Your task to perform on an android device: Open the map Image 0: 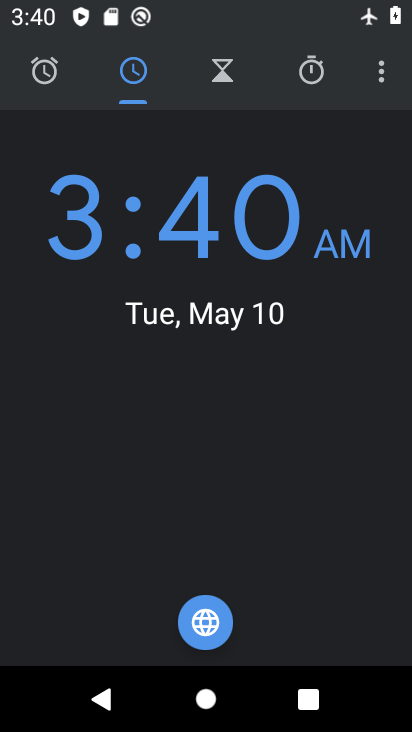
Step 0: press home button
Your task to perform on an android device: Open the map Image 1: 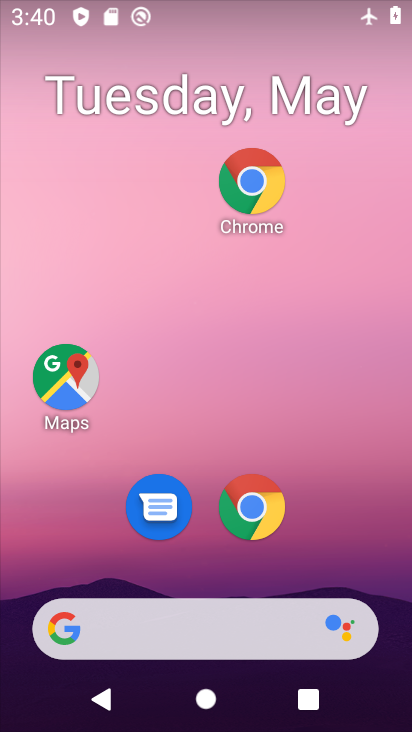
Step 1: click (61, 377)
Your task to perform on an android device: Open the map Image 2: 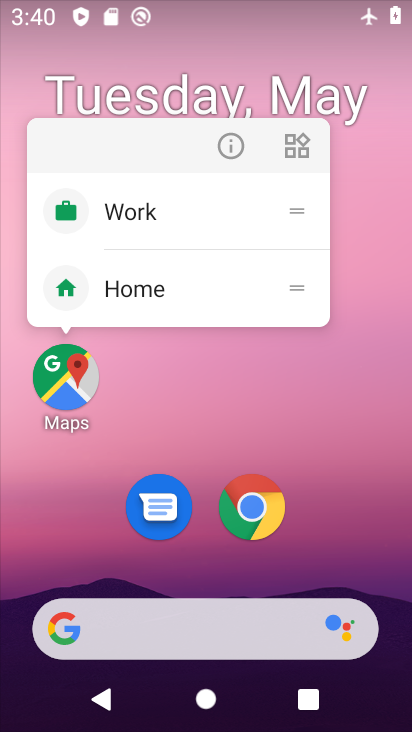
Step 2: click (60, 373)
Your task to perform on an android device: Open the map Image 3: 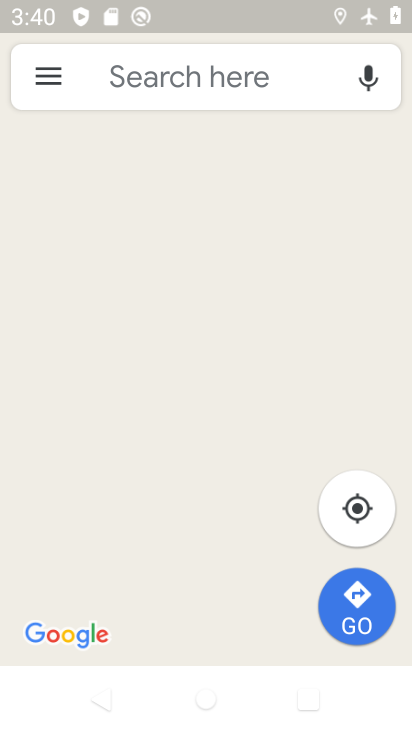
Step 3: task complete